Your task to perform on an android device: Open Reddit.com Image 0: 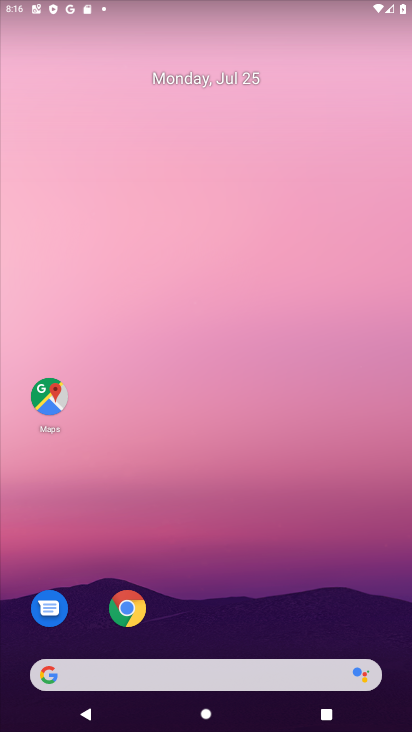
Step 0: drag from (268, 625) to (282, 136)
Your task to perform on an android device: Open Reddit.com Image 1: 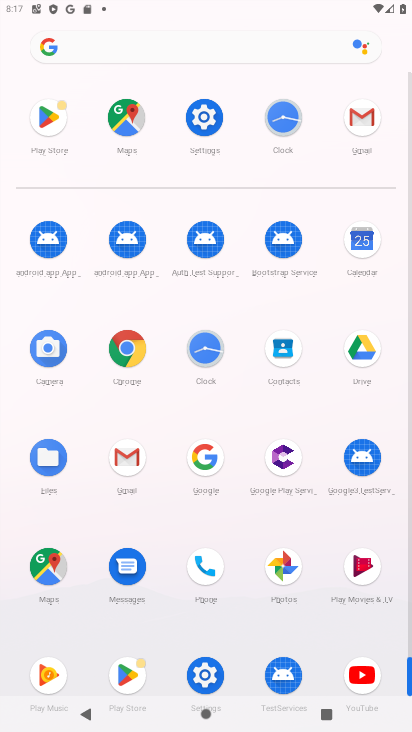
Step 1: click (119, 350)
Your task to perform on an android device: Open Reddit.com Image 2: 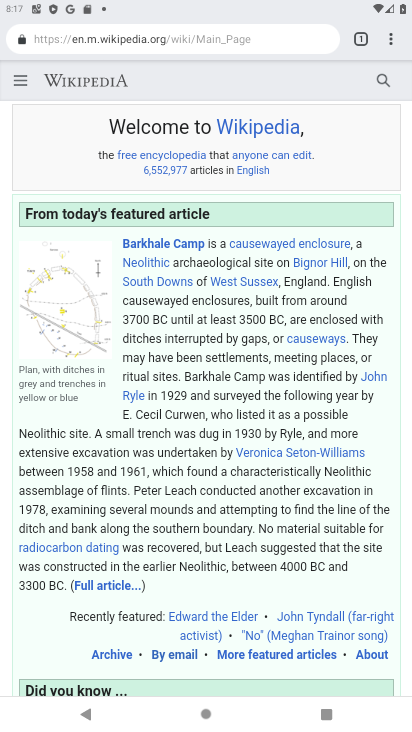
Step 2: click (201, 37)
Your task to perform on an android device: Open Reddit.com Image 3: 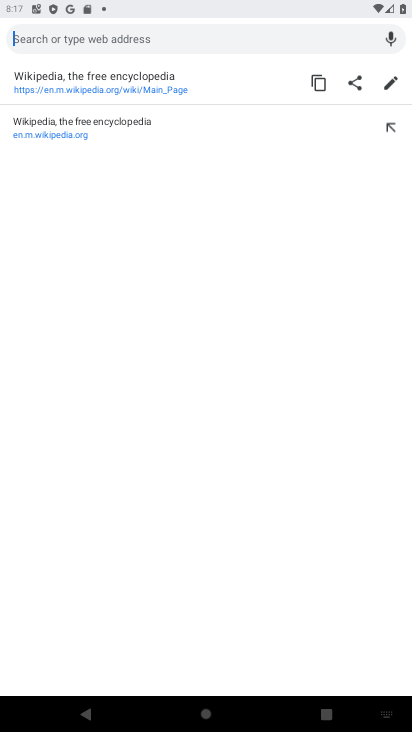
Step 3: type "reddit"
Your task to perform on an android device: Open Reddit.com Image 4: 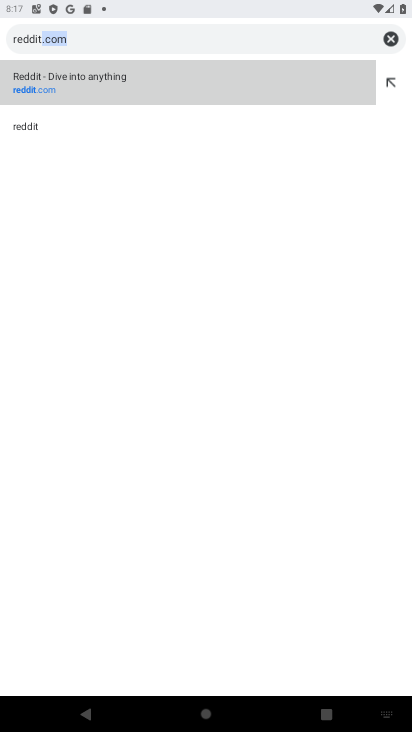
Step 4: click (156, 91)
Your task to perform on an android device: Open Reddit.com Image 5: 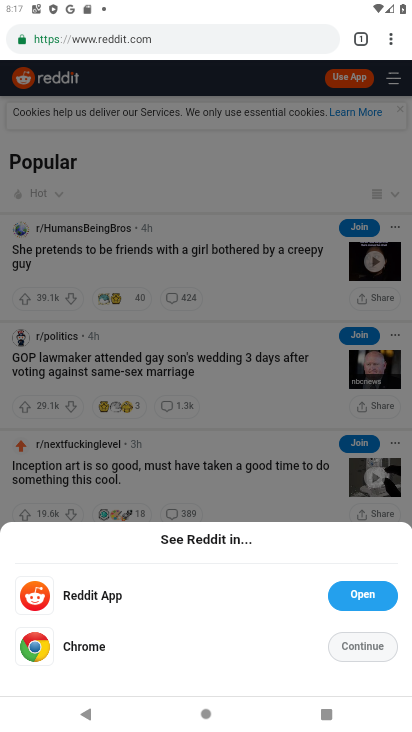
Step 5: task complete